Your task to perform on an android device: Go to ESPN.com Image 0: 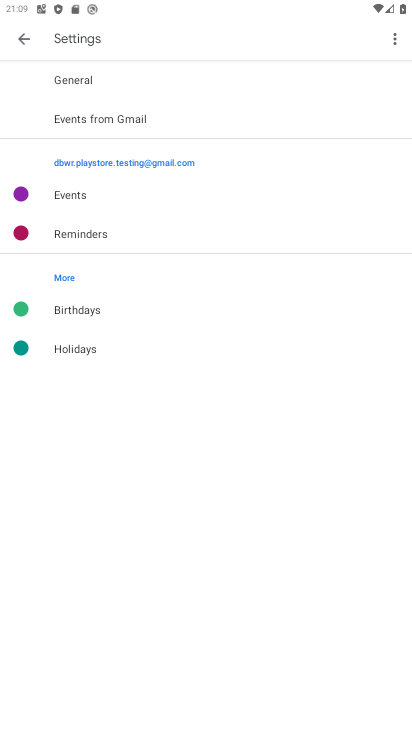
Step 0: press back button
Your task to perform on an android device: Go to ESPN.com Image 1: 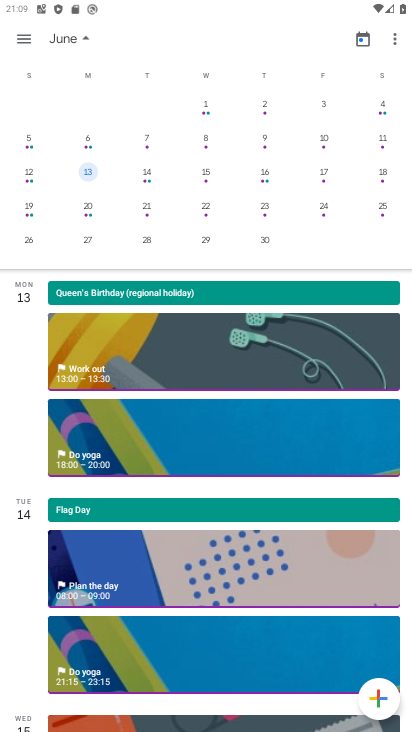
Step 1: press back button
Your task to perform on an android device: Go to ESPN.com Image 2: 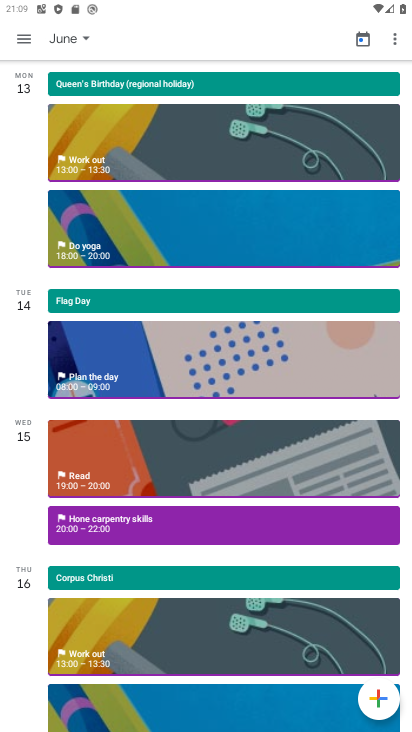
Step 2: press back button
Your task to perform on an android device: Go to ESPN.com Image 3: 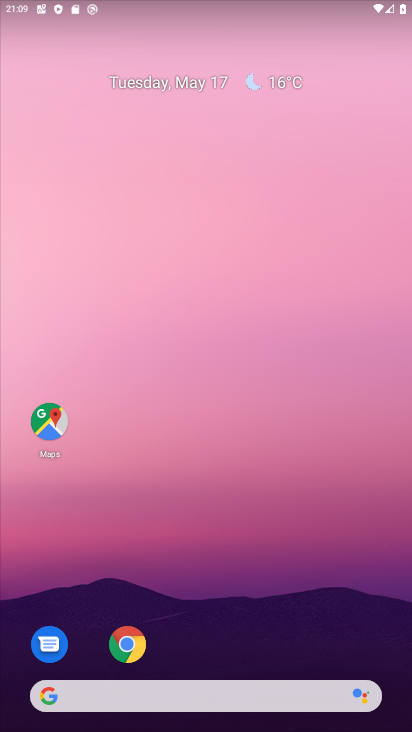
Step 3: click (137, 651)
Your task to perform on an android device: Go to ESPN.com Image 4: 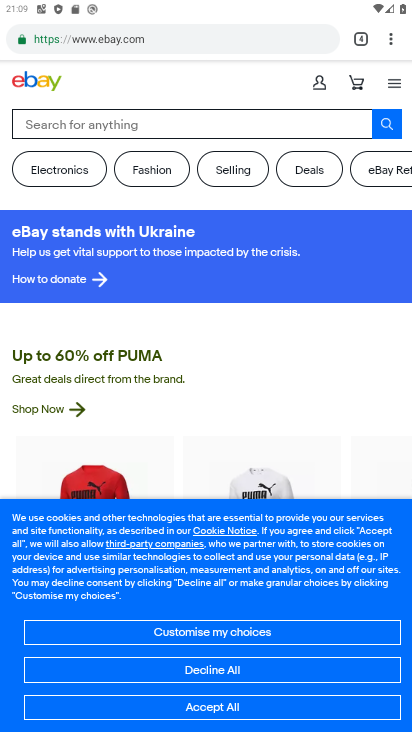
Step 4: click (355, 38)
Your task to perform on an android device: Go to ESPN.com Image 5: 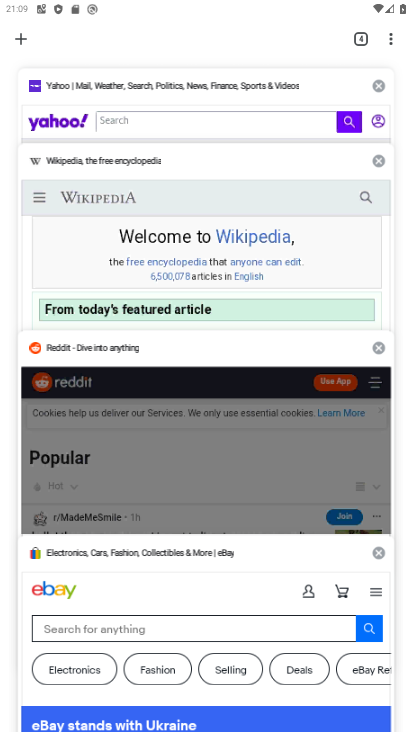
Step 5: drag from (156, 110) to (168, 509)
Your task to perform on an android device: Go to ESPN.com Image 6: 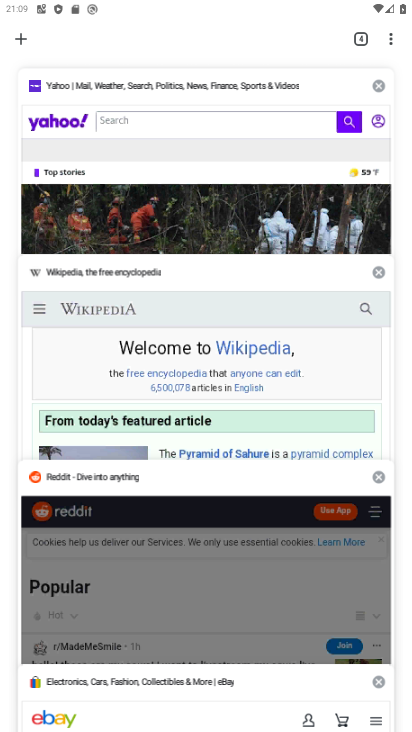
Step 6: click (18, 27)
Your task to perform on an android device: Go to ESPN.com Image 7: 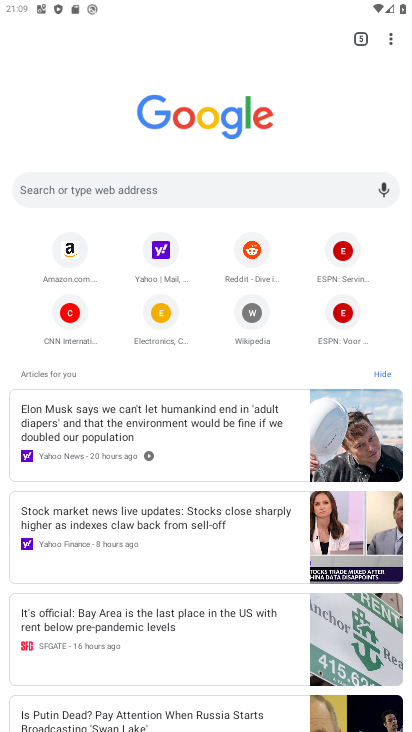
Step 7: click (340, 260)
Your task to perform on an android device: Go to ESPN.com Image 8: 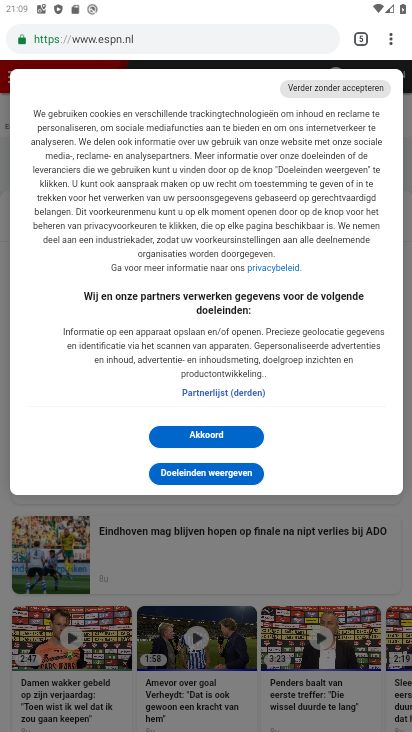
Step 8: task complete